Your task to perform on an android device: Play the last video I watched on Youtube Image 0: 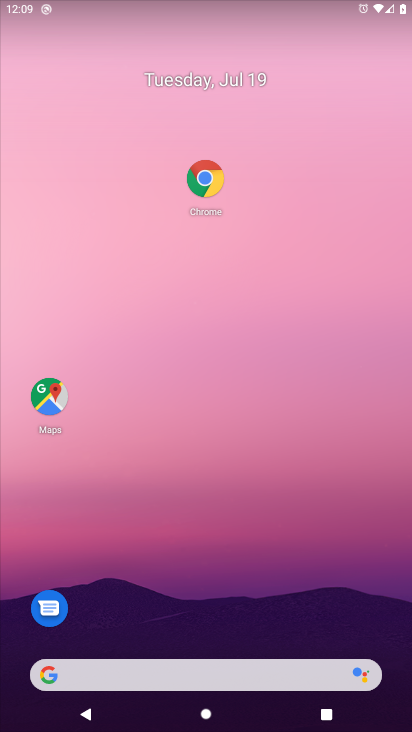
Step 0: drag from (27, 686) to (236, 289)
Your task to perform on an android device: Play the last video I watched on Youtube Image 1: 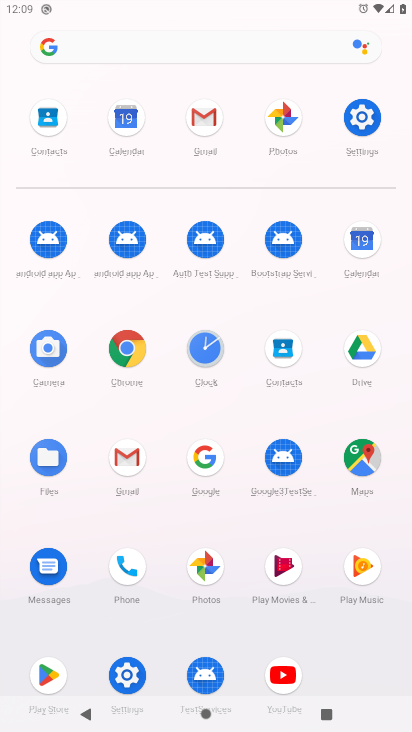
Step 1: click (288, 666)
Your task to perform on an android device: Play the last video I watched on Youtube Image 2: 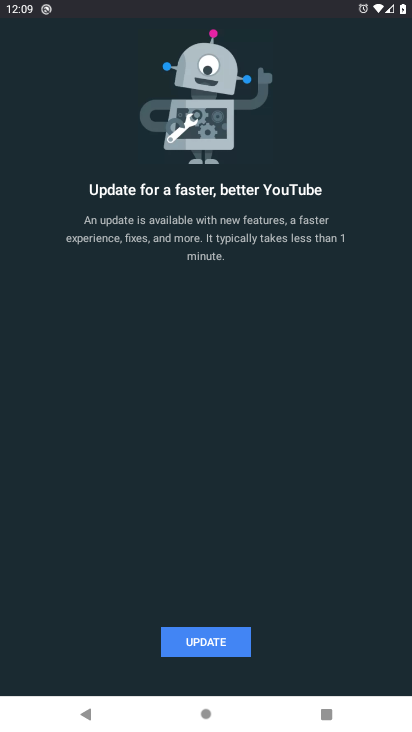
Step 2: task complete